Your task to perform on an android device: Open battery settings Image 0: 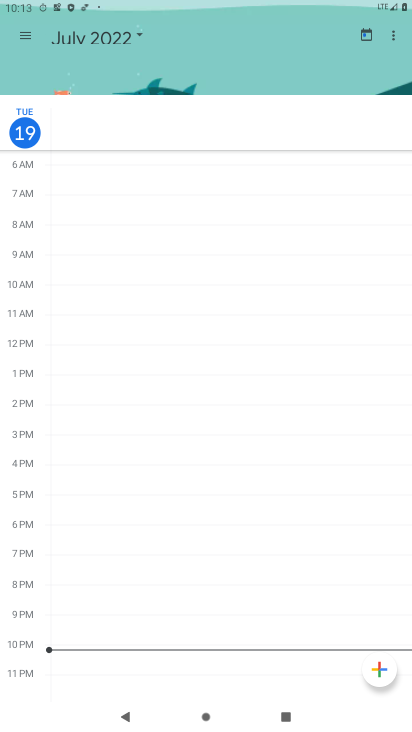
Step 0: press home button
Your task to perform on an android device: Open battery settings Image 1: 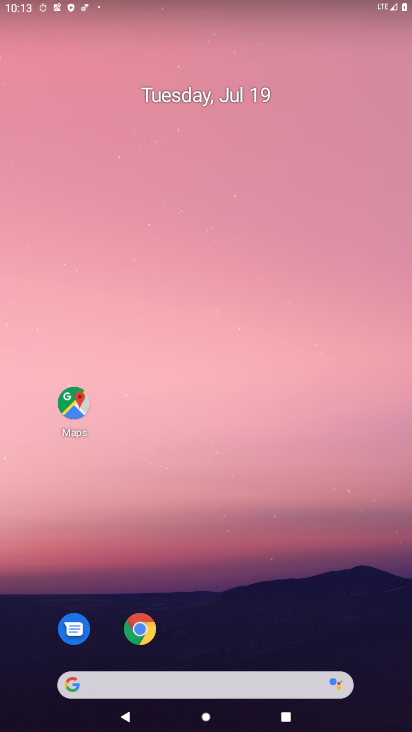
Step 1: drag from (200, 467) to (207, 9)
Your task to perform on an android device: Open battery settings Image 2: 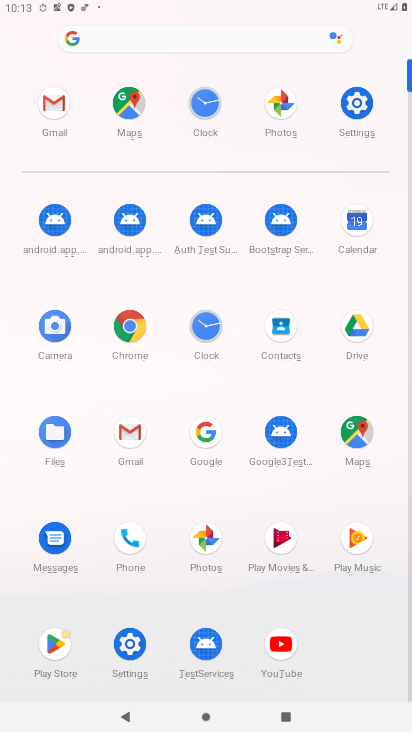
Step 2: click (128, 646)
Your task to perform on an android device: Open battery settings Image 3: 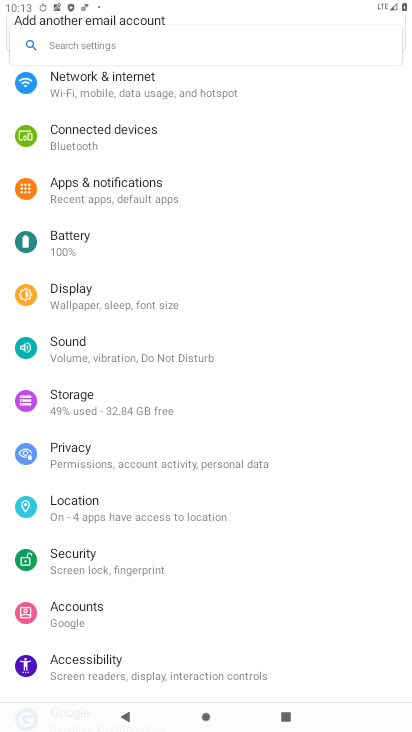
Step 3: click (82, 242)
Your task to perform on an android device: Open battery settings Image 4: 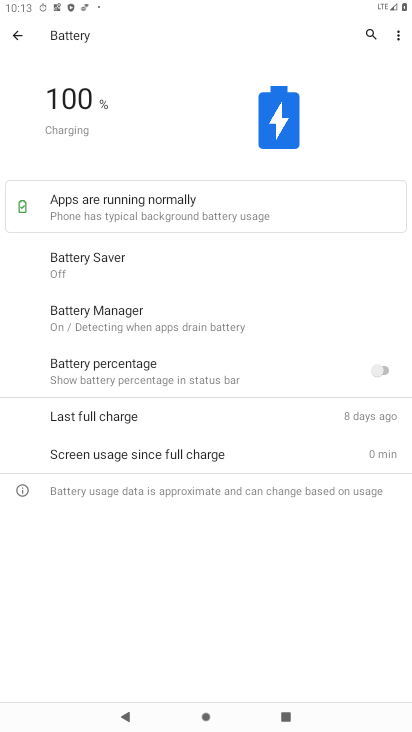
Step 4: task complete